Your task to perform on an android device: open a bookmark in the chrome app Image 0: 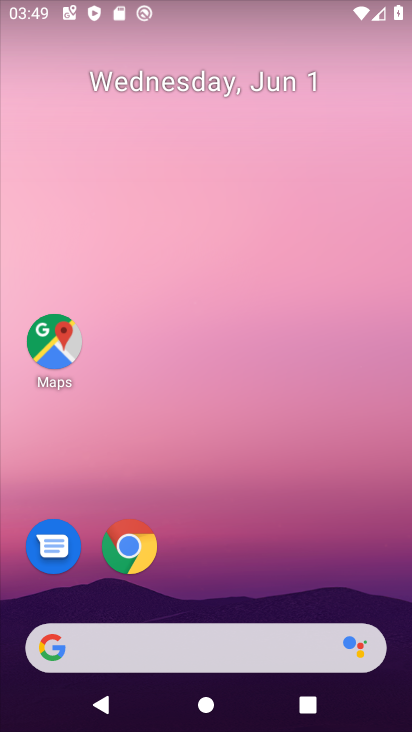
Step 0: click (144, 552)
Your task to perform on an android device: open a bookmark in the chrome app Image 1: 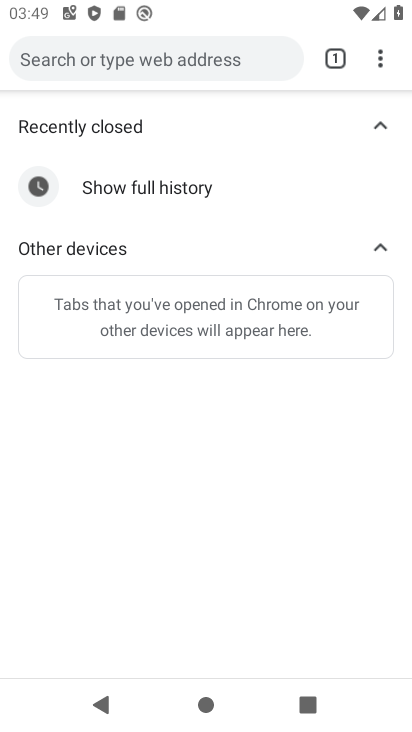
Step 1: click (382, 47)
Your task to perform on an android device: open a bookmark in the chrome app Image 2: 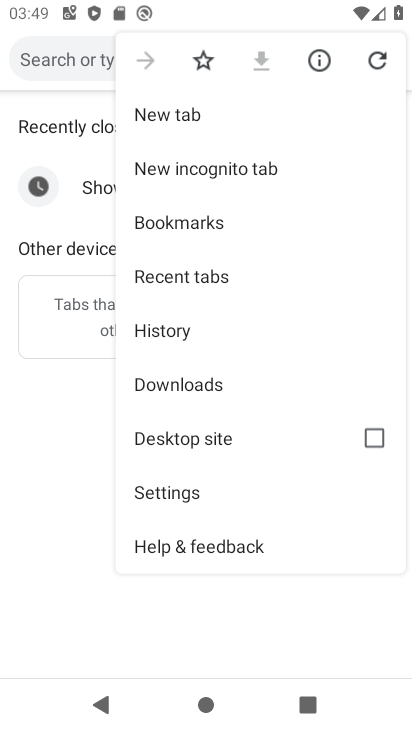
Step 2: click (211, 217)
Your task to perform on an android device: open a bookmark in the chrome app Image 3: 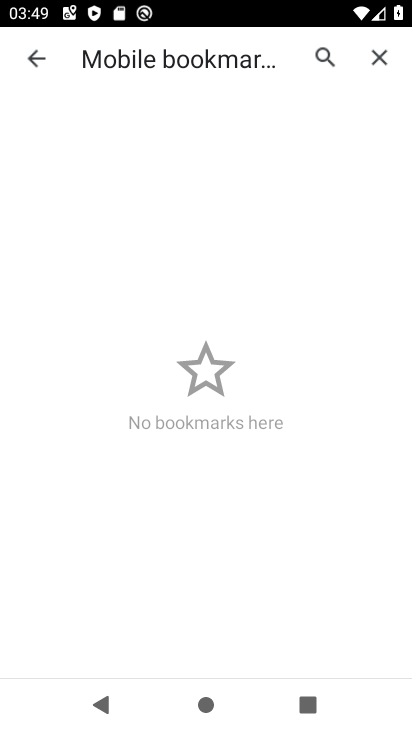
Step 3: task complete